Your task to perform on an android device: empty trash in google photos Image 0: 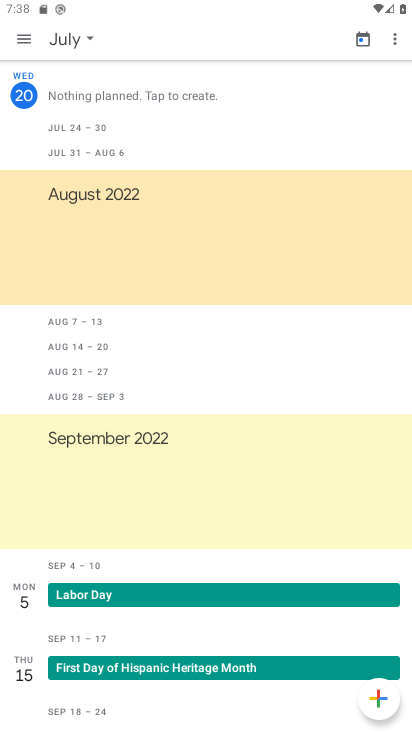
Step 0: press home button
Your task to perform on an android device: empty trash in google photos Image 1: 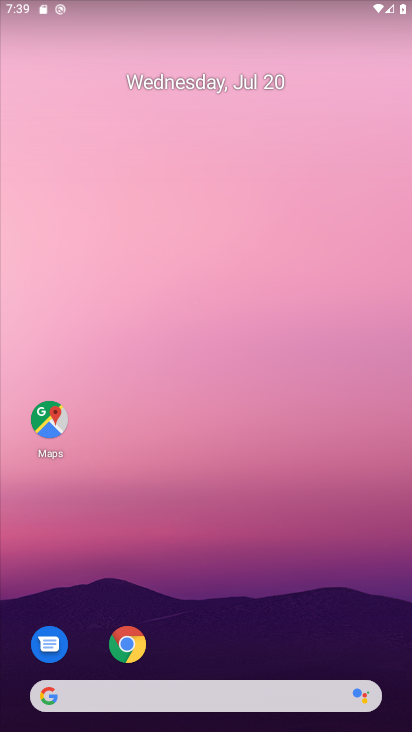
Step 1: drag from (164, 675) to (197, 175)
Your task to perform on an android device: empty trash in google photos Image 2: 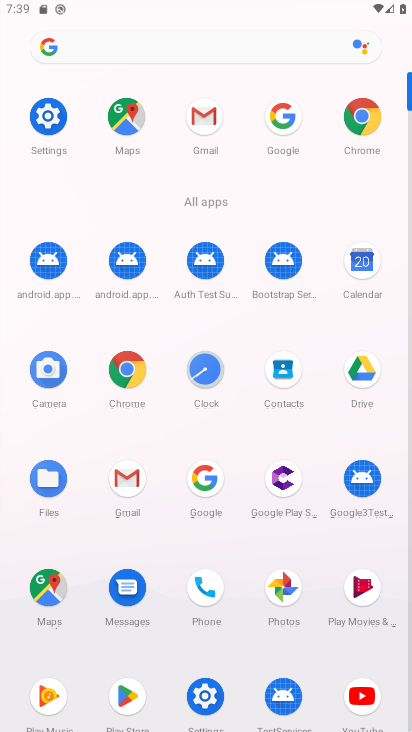
Step 2: click (292, 595)
Your task to perform on an android device: empty trash in google photos Image 3: 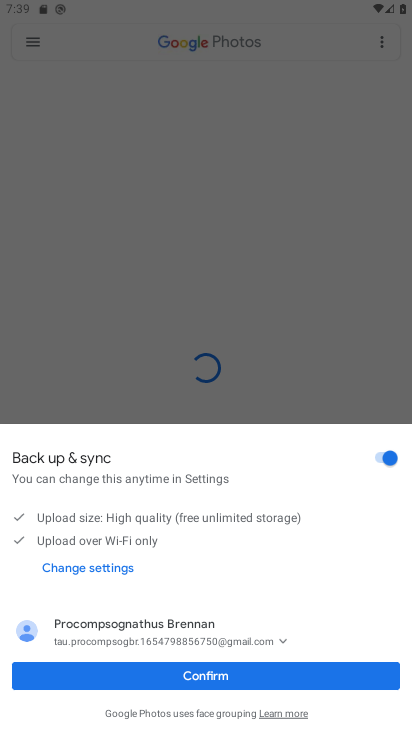
Step 3: click (210, 676)
Your task to perform on an android device: empty trash in google photos Image 4: 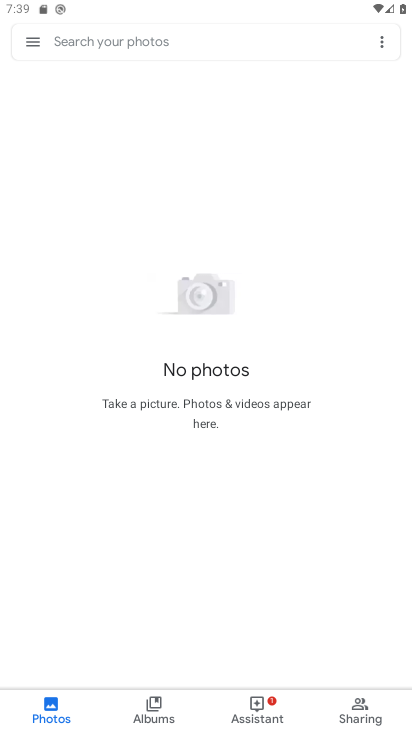
Step 4: click (30, 48)
Your task to perform on an android device: empty trash in google photos Image 5: 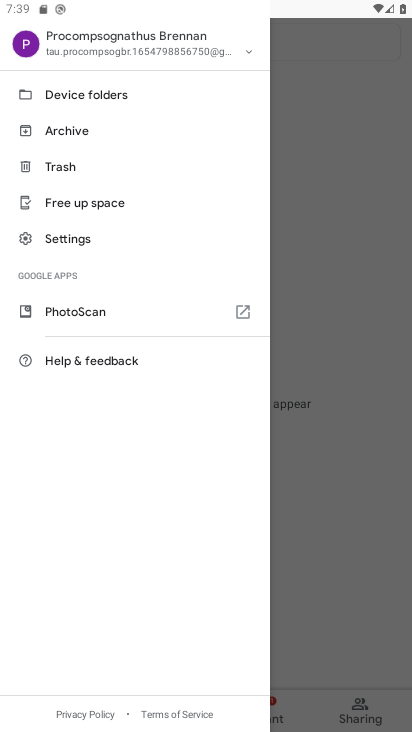
Step 5: click (64, 168)
Your task to perform on an android device: empty trash in google photos Image 6: 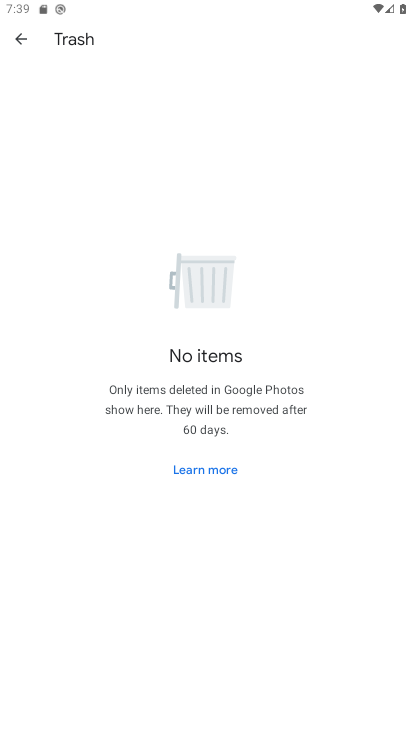
Step 6: task complete